Your task to perform on an android device: change your default location settings in chrome Image 0: 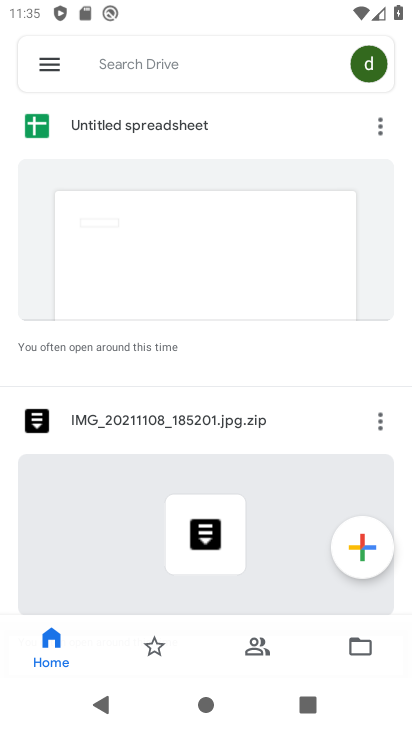
Step 0: press home button
Your task to perform on an android device: change your default location settings in chrome Image 1: 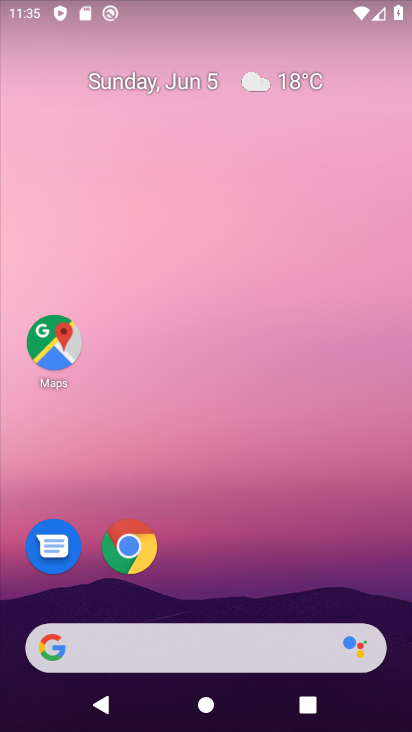
Step 1: click (130, 545)
Your task to perform on an android device: change your default location settings in chrome Image 2: 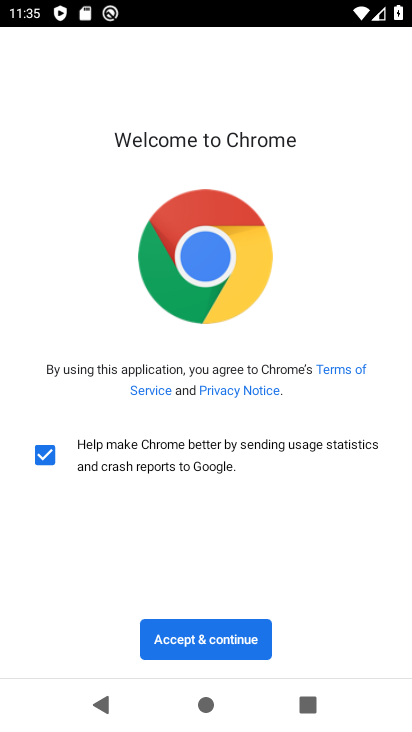
Step 2: click (205, 630)
Your task to perform on an android device: change your default location settings in chrome Image 3: 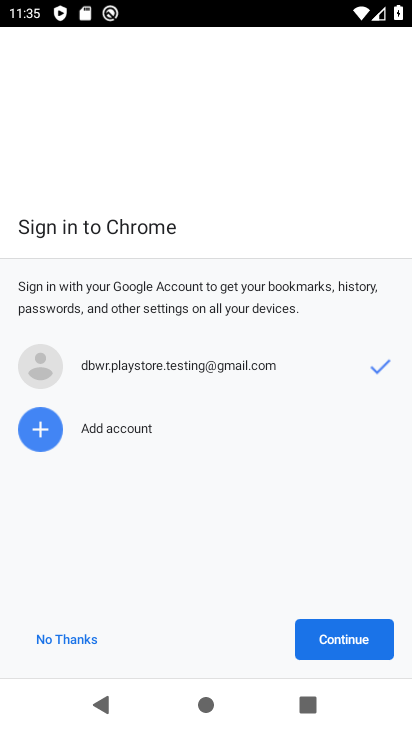
Step 3: click (325, 636)
Your task to perform on an android device: change your default location settings in chrome Image 4: 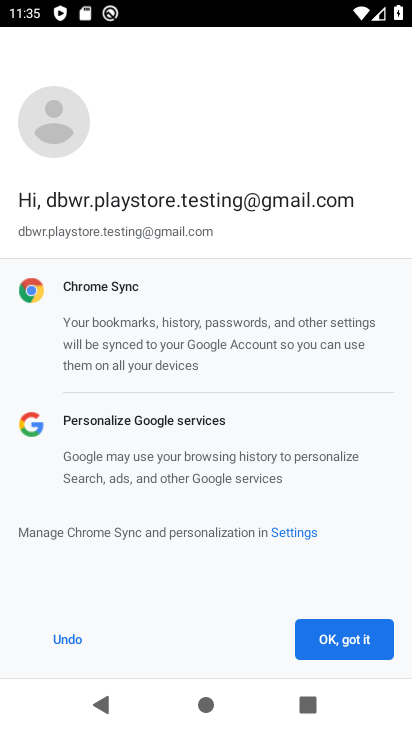
Step 4: click (331, 640)
Your task to perform on an android device: change your default location settings in chrome Image 5: 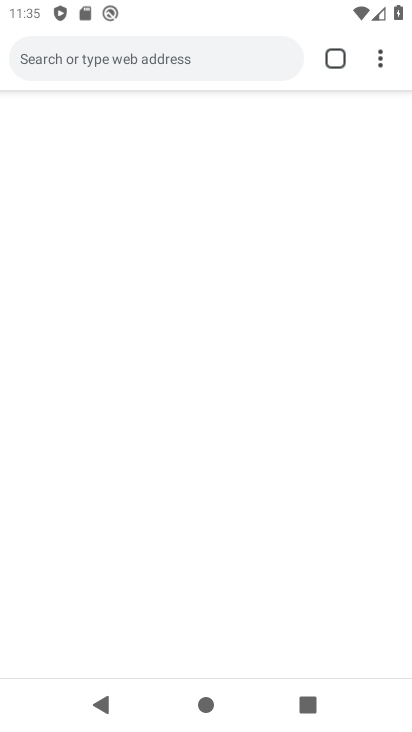
Step 5: click (385, 48)
Your task to perform on an android device: change your default location settings in chrome Image 6: 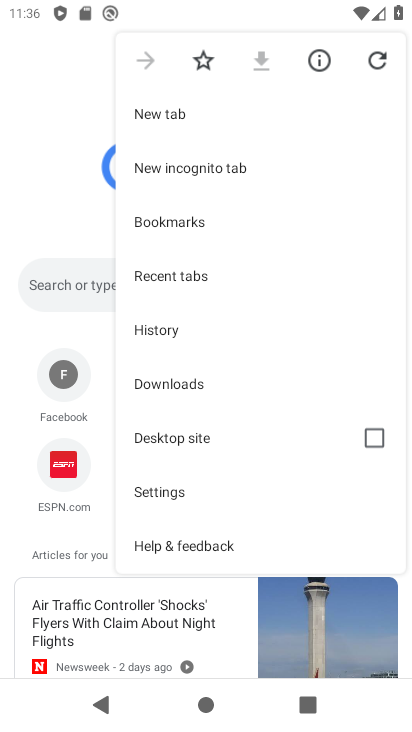
Step 6: click (176, 492)
Your task to perform on an android device: change your default location settings in chrome Image 7: 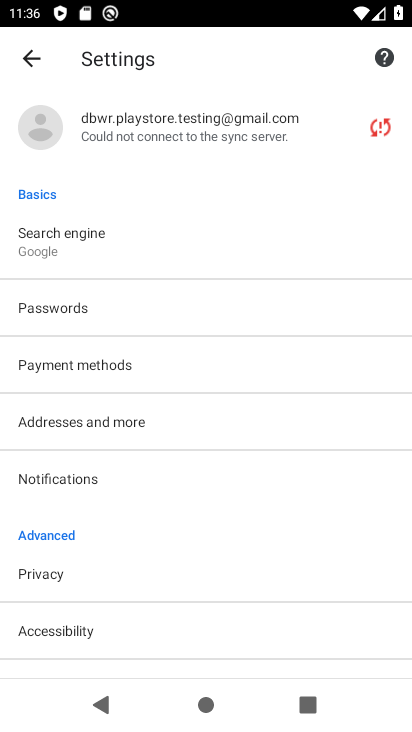
Step 7: drag from (128, 589) to (139, 402)
Your task to perform on an android device: change your default location settings in chrome Image 8: 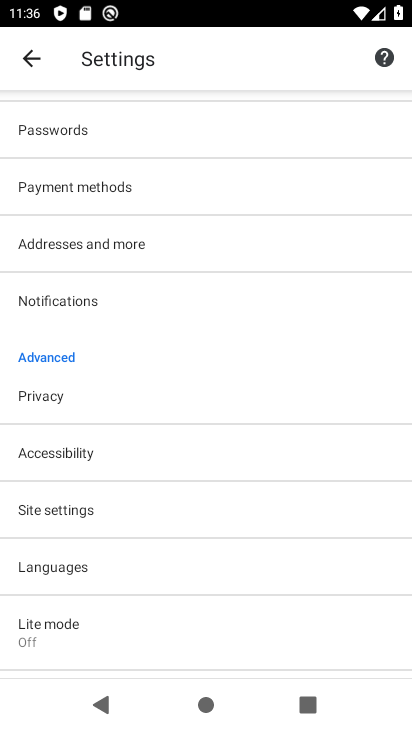
Step 8: click (107, 506)
Your task to perform on an android device: change your default location settings in chrome Image 9: 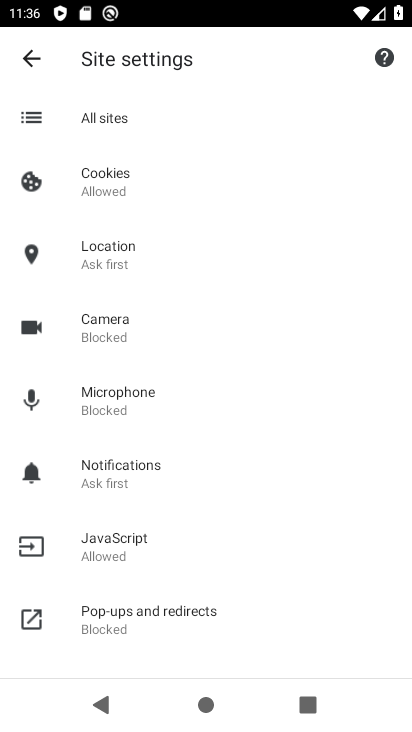
Step 9: click (130, 254)
Your task to perform on an android device: change your default location settings in chrome Image 10: 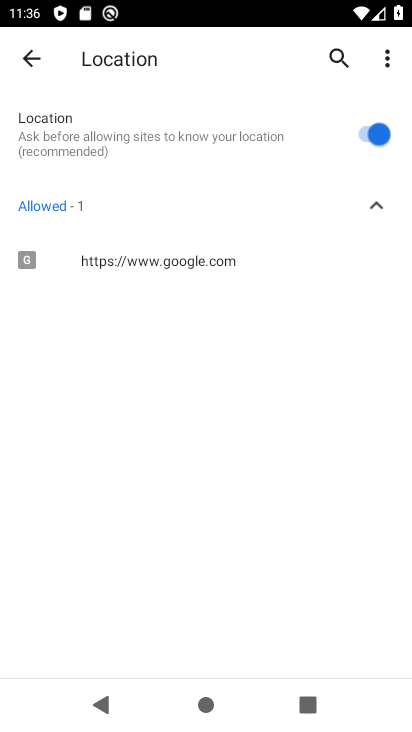
Step 10: click (373, 133)
Your task to perform on an android device: change your default location settings in chrome Image 11: 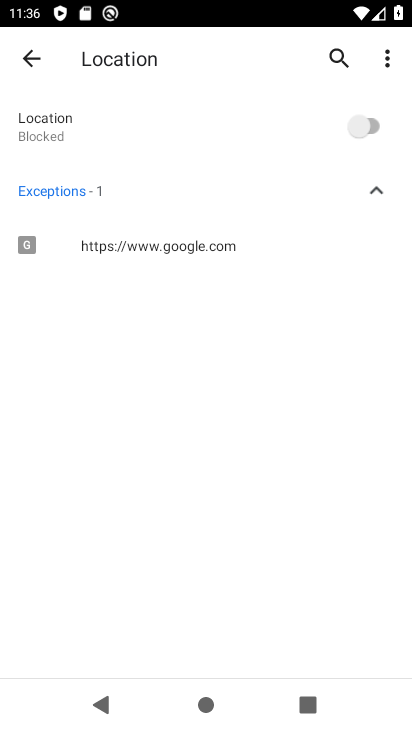
Step 11: task complete